Your task to perform on an android device: Open eBay Image 0: 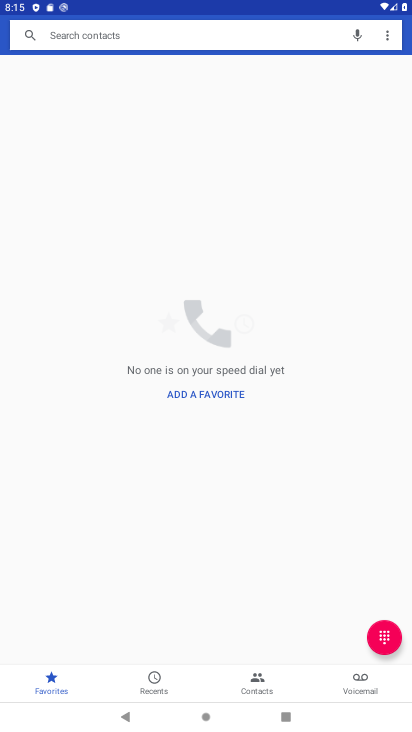
Step 0: click (185, 41)
Your task to perform on an android device: Open eBay Image 1: 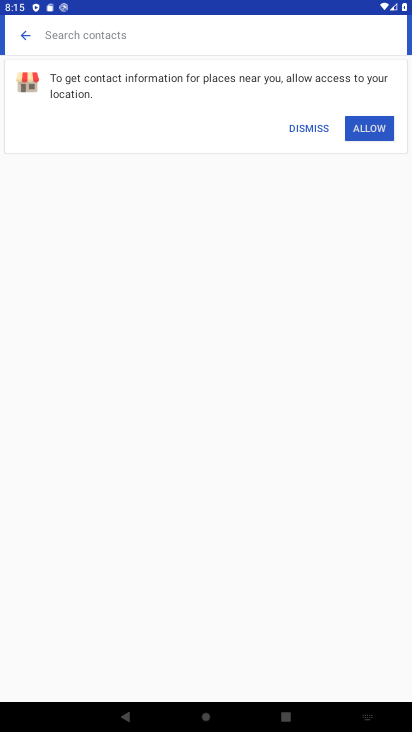
Step 1: press home button
Your task to perform on an android device: Open eBay Image 2: 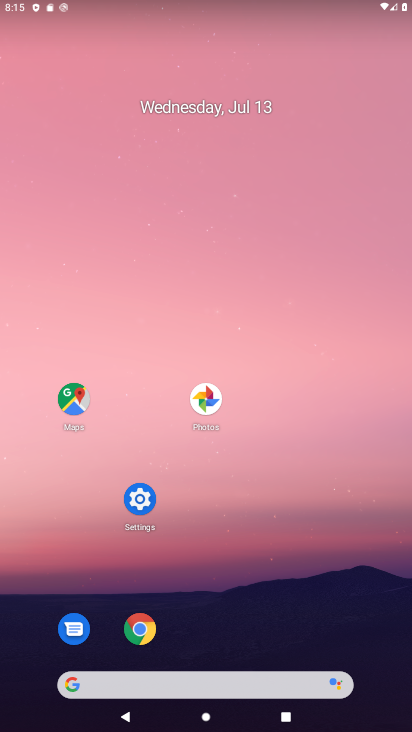
Step 2: click (137, 618)
Your task to perform on an android device: Open eBay Image 3: 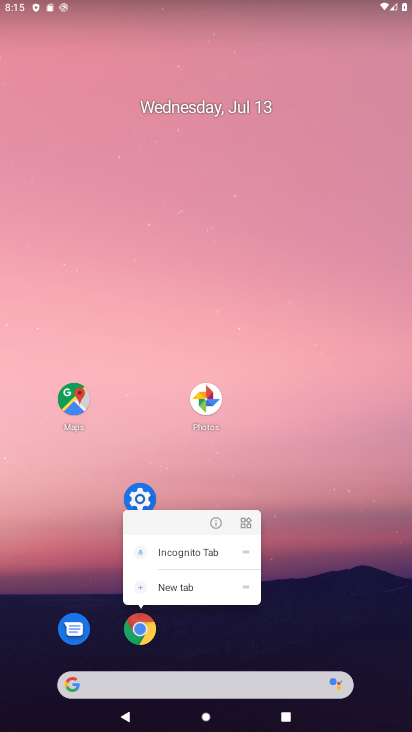
Step 3: click (140, 630)
Your task to perform on an android device: Open eBay Image 4: 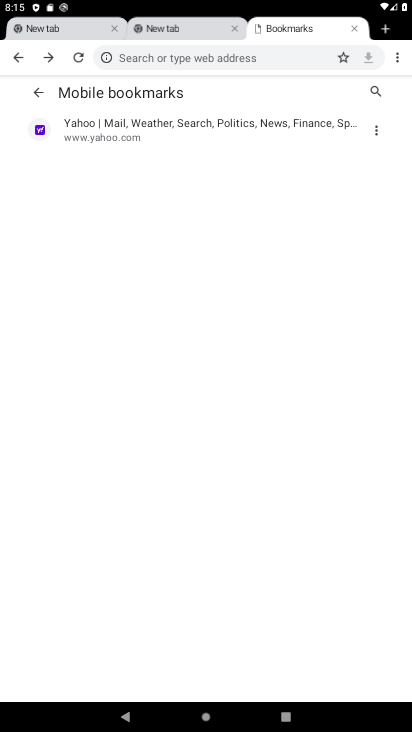
Step 4: click (247, 58)
Your task to perform on an android device: Open eBay Image 5: 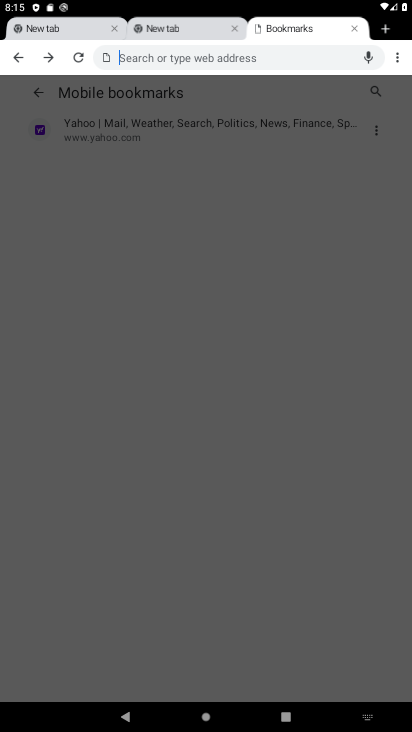
Step 5: type "eBay"
Your task to perform on an android device: Open eBay Image 6: 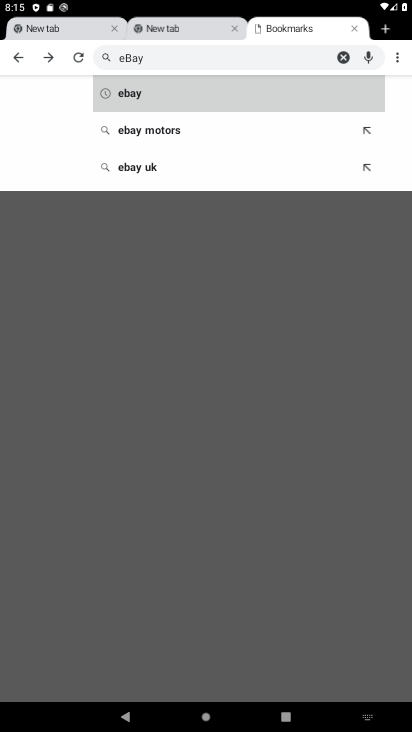
Step 6: click (142, 88)
Your task to perform on an android device: Open eBay Image 7: 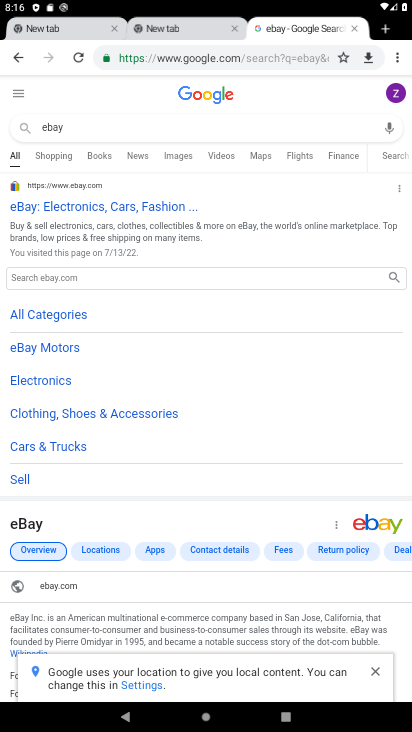
Step 7: task complete